Your task to perform on an android device: check out phone information Image 0: 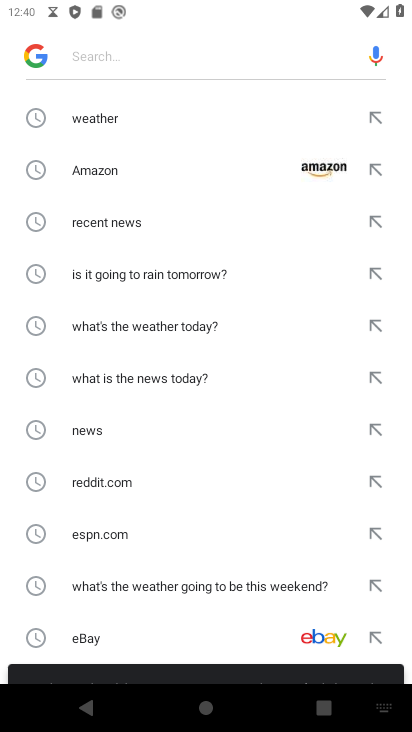
Step 0: press home button
Your task to perform on an android device: check out phone information Image 1: 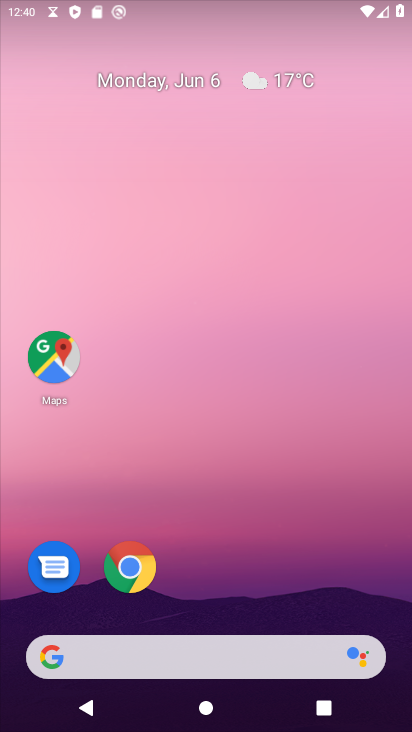
Step 1: drag from (241, 723) to (235, 86)
Your task to perform on an android device: check out phone information Image 2: 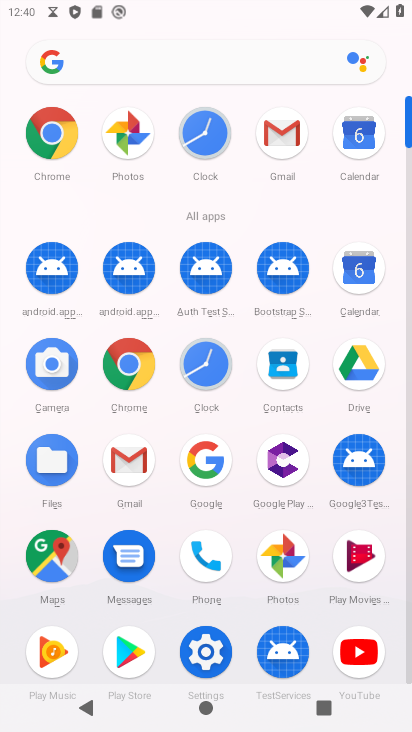
Step 2: click (207, 641)
Your task to perform on an android device: check out phone information Image 3: 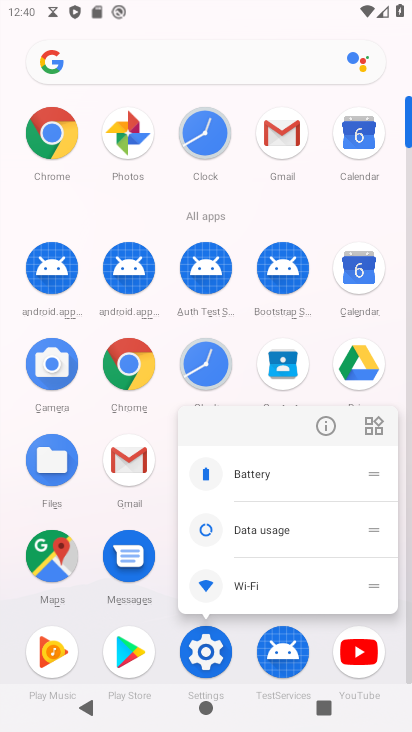
Step 3: click (209, 655)
Your task to perform on an android device: check out phone information Image 4: 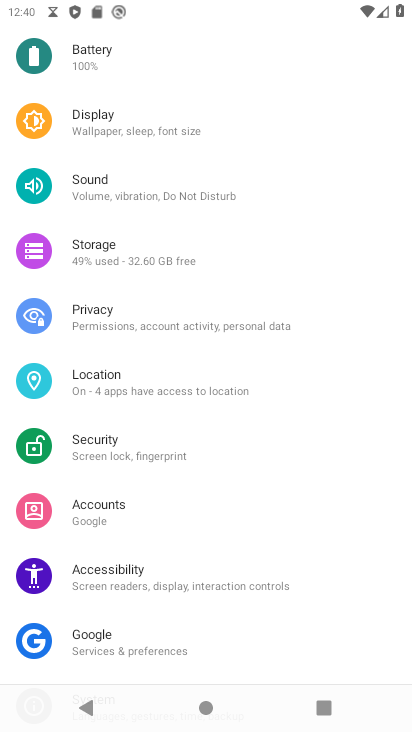
Step 4: drag from (219, 656) to (221, 296)
Your task to perform on an android device: check out phone information Image 5: 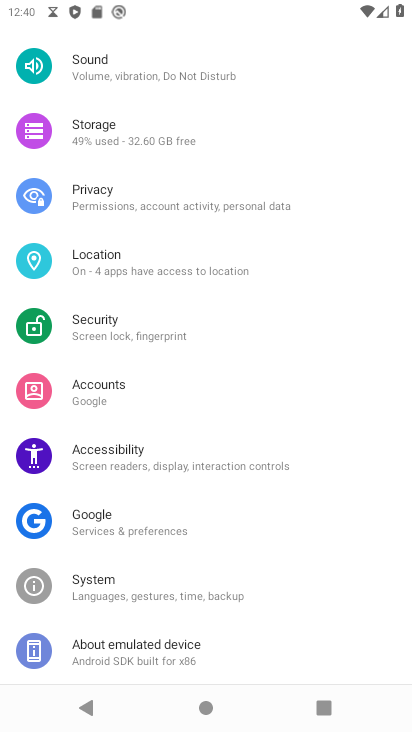
Step 5: click (126, 649)
Your task to perform on an android device: check out phone information Image 6: 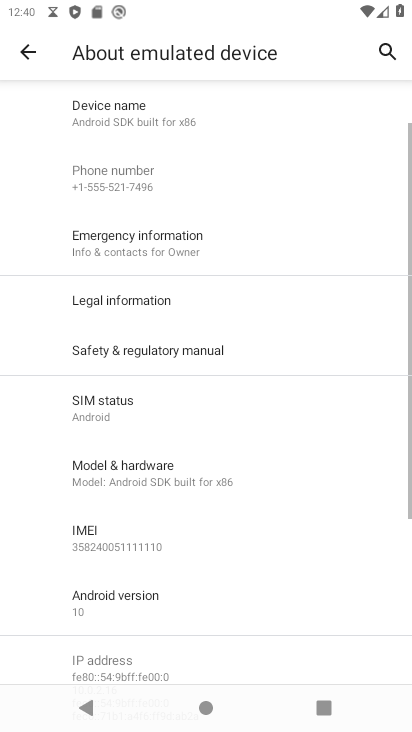
Step 6: task complete